Your task to perform on an android device: Open Android settings Image 0: 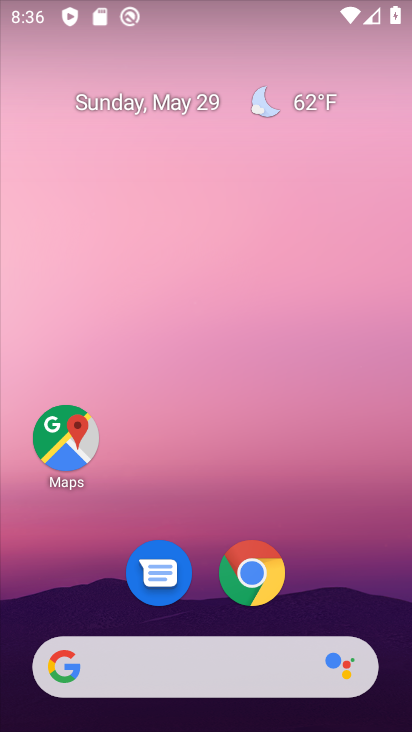
Step 0: drag from (360, 609) to (355, 69)
Your task to perform on an android device: Open Android settings Image 1: 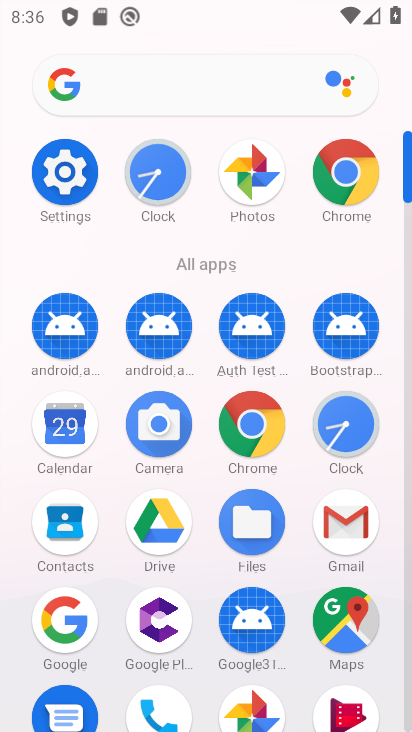
Step 1: click (55, 180)
Your task to perform on an android device: Open Android settings Image 2: 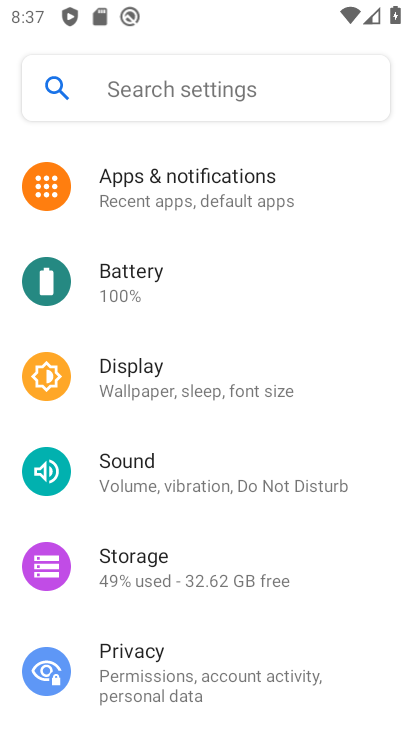
Step 2: task complete